Your task to perform on an android device: turn off picture-in-picture Image 0: 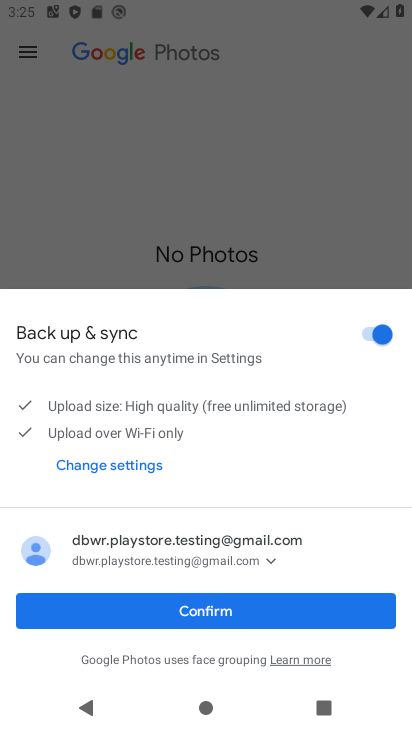
Step 0: press home button
Your task to perform on an android device: turn off picture-in-picture Image 1: 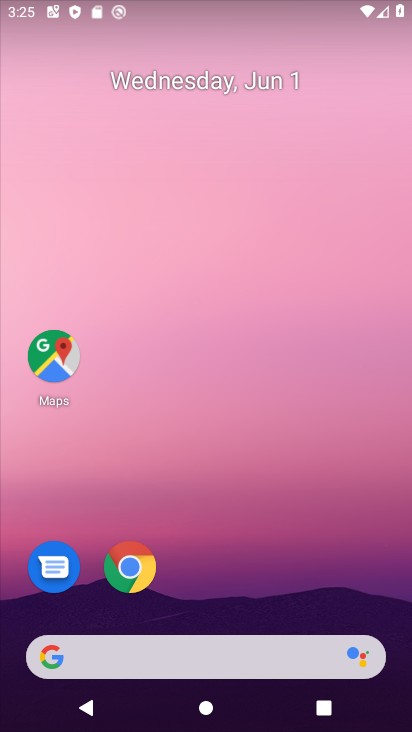
Step 1: click (120, 561)
Your task to perform on an android device: turn off picture-in-picture Image 2: 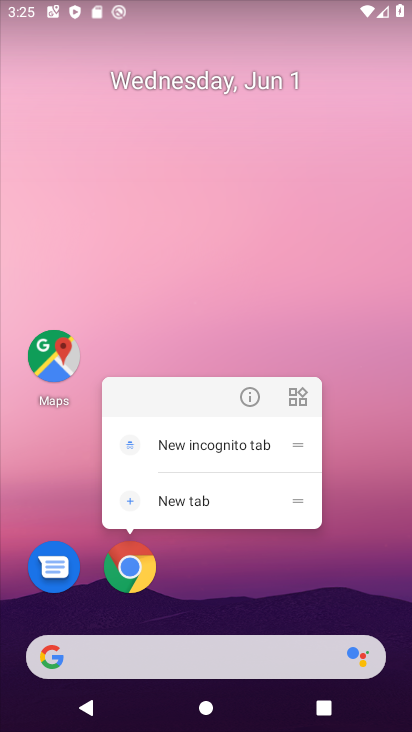
Step 2: click (250, 394)
Your task to perform on an android device: turn off picture-in-picture Image 3: 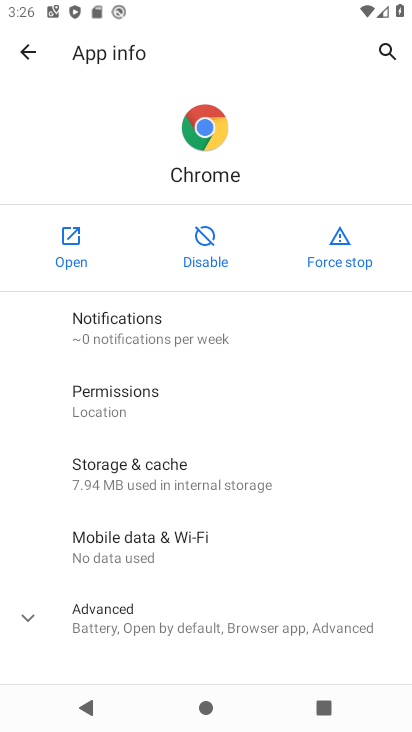
Step 3: click (117, 608)
Your task to perform on an android device: turn off picture-in-picture Image 4: 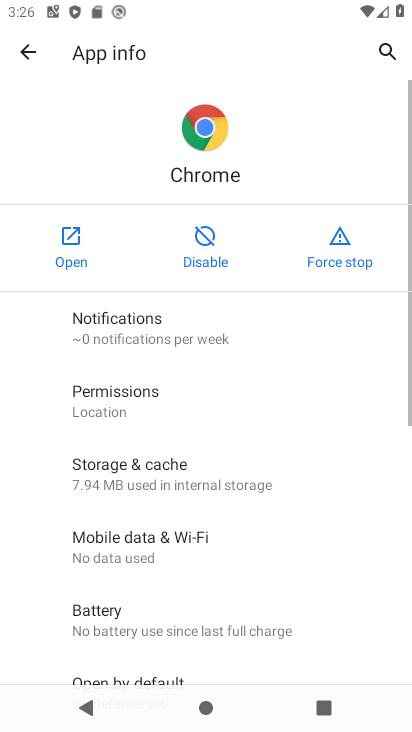
Step 4: drag from (141, 637) to (92, 244)
Your task to perform on an android device: turn off picture-in-picture Image 5: 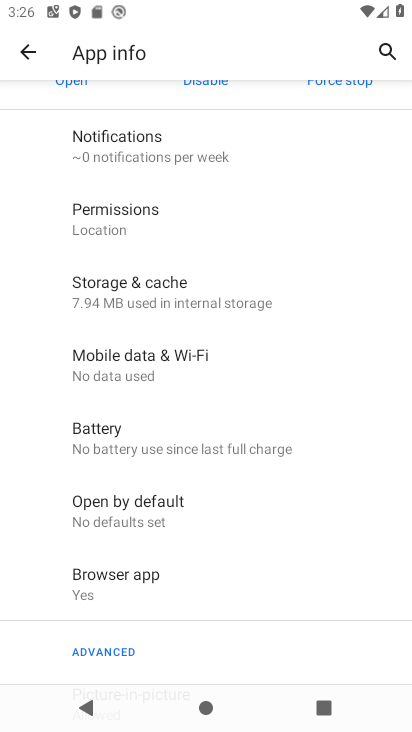
Step 5: drag from (110, 661) to (71, 327)
Your task to perform on an android device: turn off picture-in-picture Image 6: 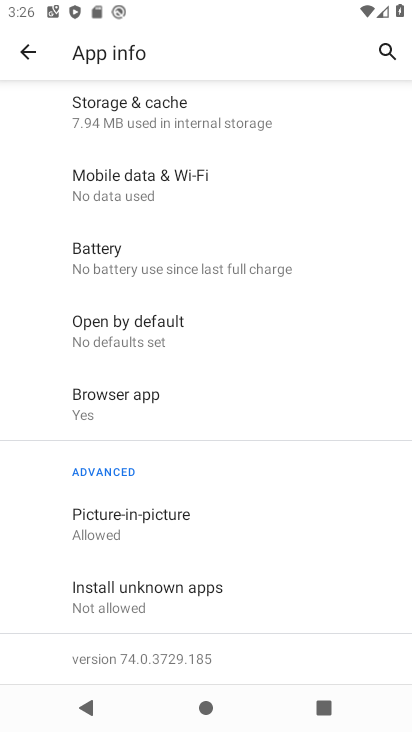
Step 6: click (108, 526)
Your task to perform on an android device: turn off picture-in-picture Image 7: 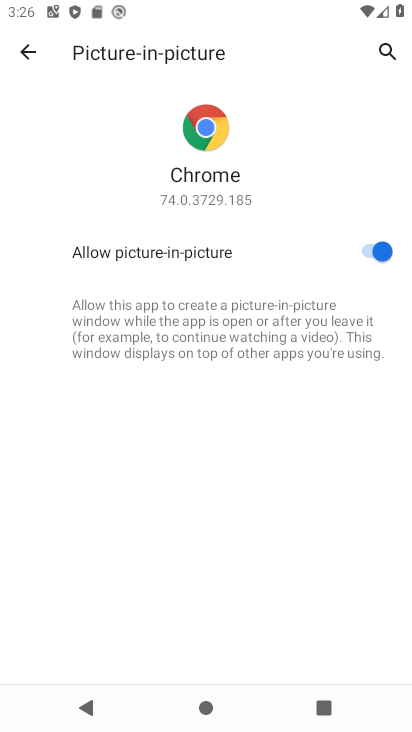
Step 7: click (363, 253)
Your task to perform on an android device: turn off picture-in-picture Image 8: 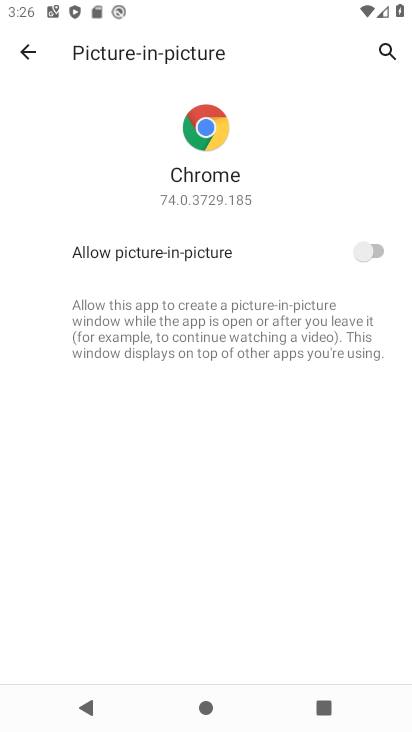
Step 8: task complete